Your task to perform on an android device: Do I have any events tomorrow? Image 0: 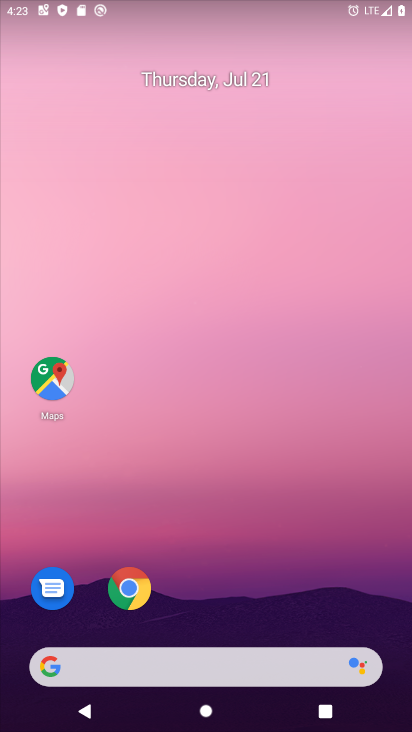
Step 0: drag from (213, 612) to (221, 120)
Your task to perform on an android device: Do I have any events tomorrow? Image 1: 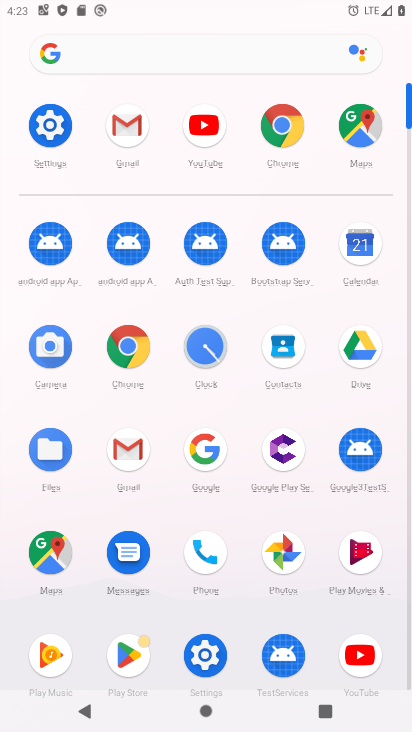
Step 1: click (358, 240)
Your task to perform on an android device: Do I have any events tomorrow? Image 2: 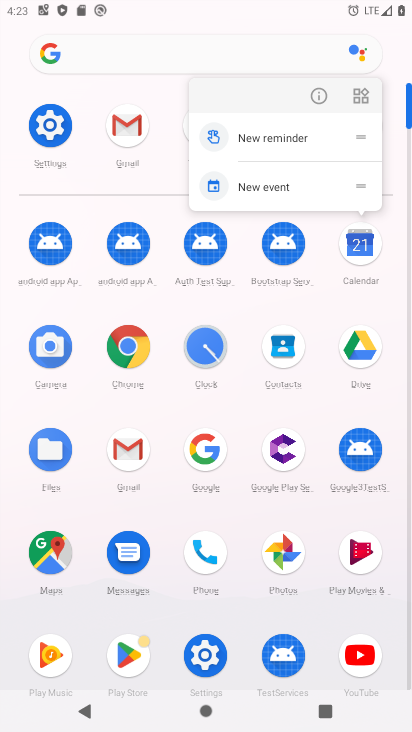
Step 2: click (354, 241)
Your task to perform on an android device: Do I have any events tomorrow? Image 3: 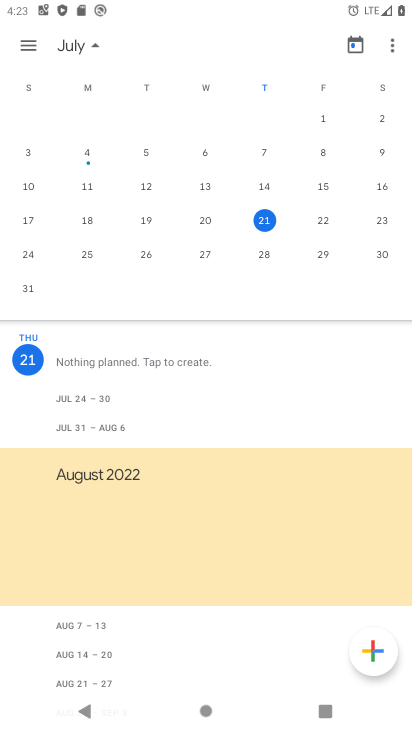
Step 3: click (318, 215)
Your task to perform on an android device: Do I have any events tomorrow? Image 4: 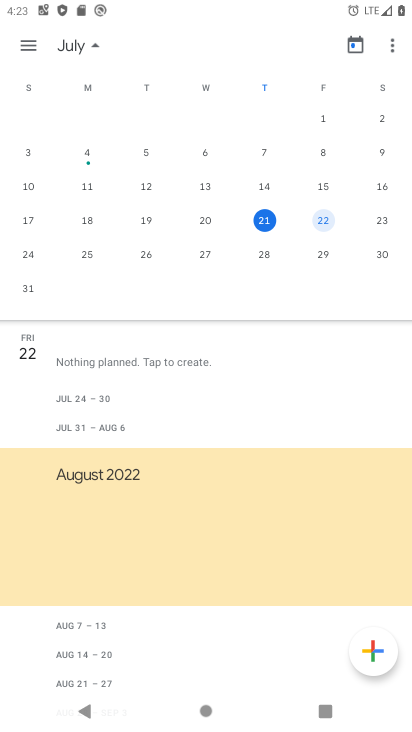
Step 4: task complete